Your task to perform on an android device: Do I have any events today? Image 0: 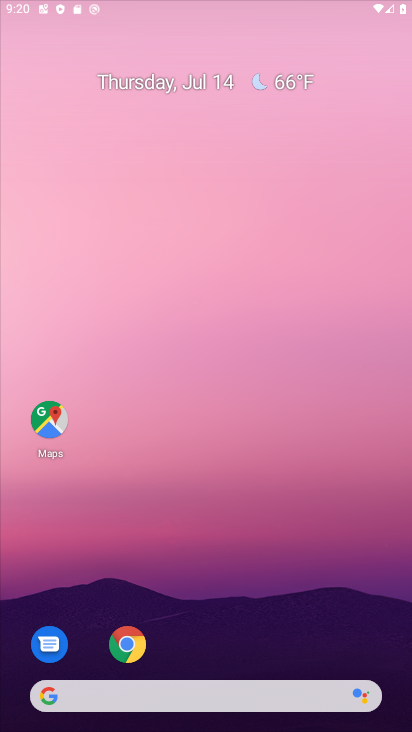
Step 0: press back button
Your task to perform on an android device: Do I have any events today? Image 1: 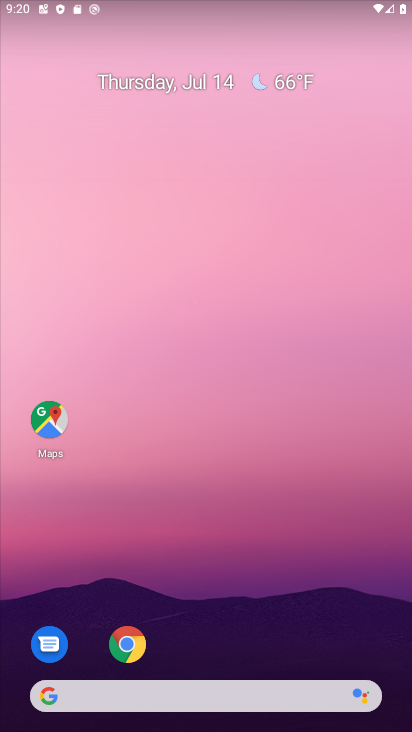
Step 1: drag from (267, 501) to (252, 433)
Your task to perform on an android device: Do I have any events today? Image 2: 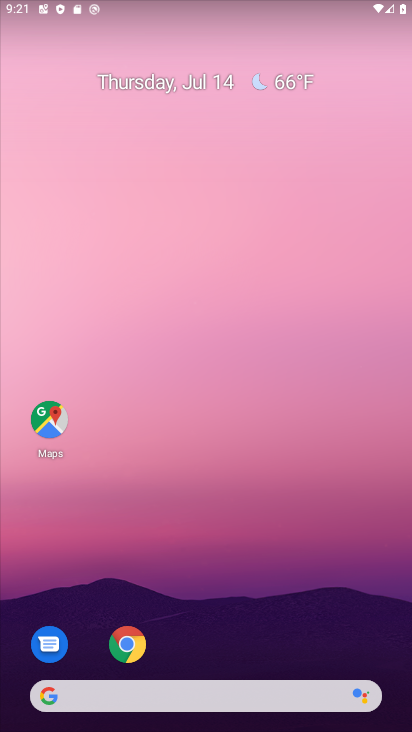
Step 2: drag from (164, 470) to (126, 152)
Your task to perform on an android device: Do I have any events today? Image 3: 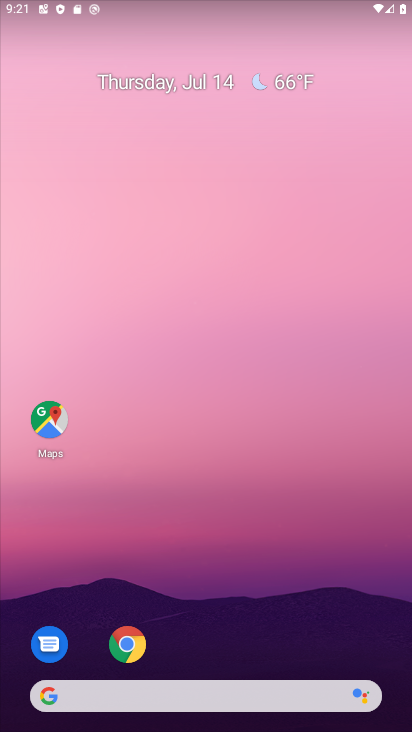
Step 3: drag from (216, 579) to (144, 107)
Your task to perform on an android device: Do I have any events today? Image 4: 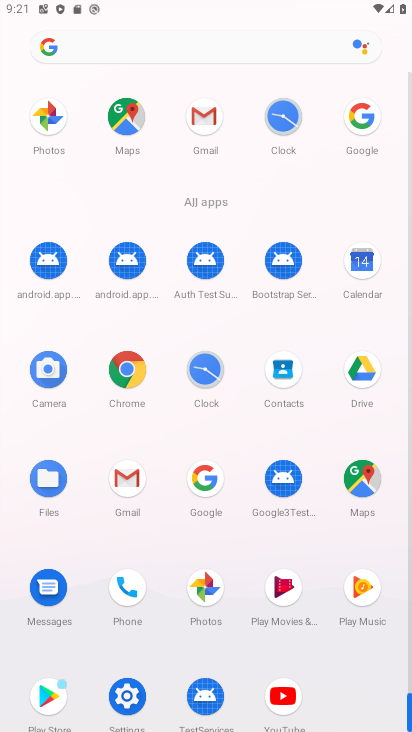
Step 4: click (368, 266)
Your task to perform on an android device: Do I have any events today? Image 5: 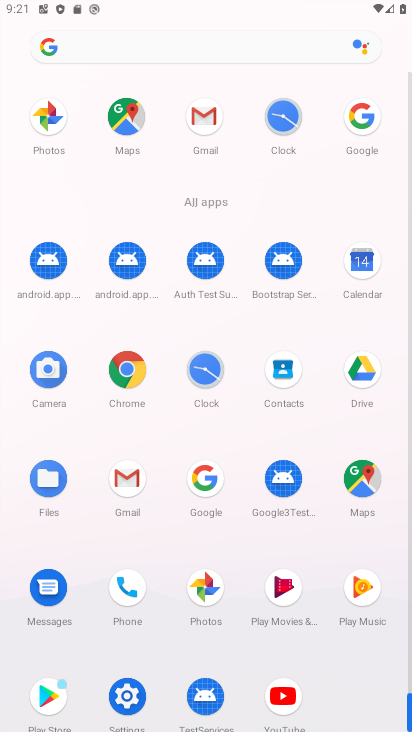
Step 5: click (368, 265)
Your task to perform on an android device: Do I have any events today? Image 6: 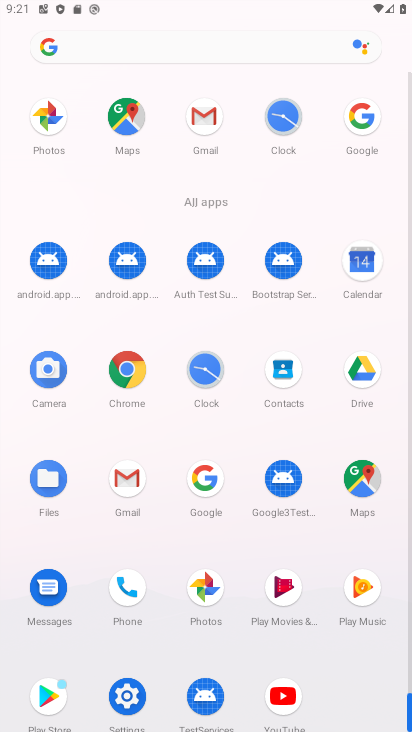
Step 6: click (353, 260)
Your task to perform on an android device: Do I have any events today? Image 7: 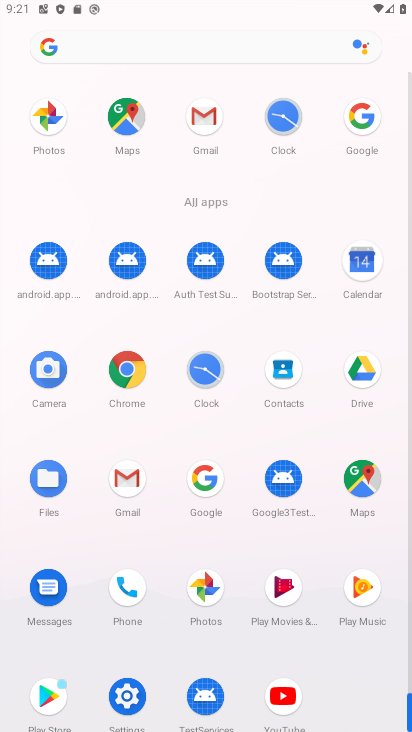
Step 7: click (353, 259)
Your task to perform on an android device: Do I have any events today? Image 8: 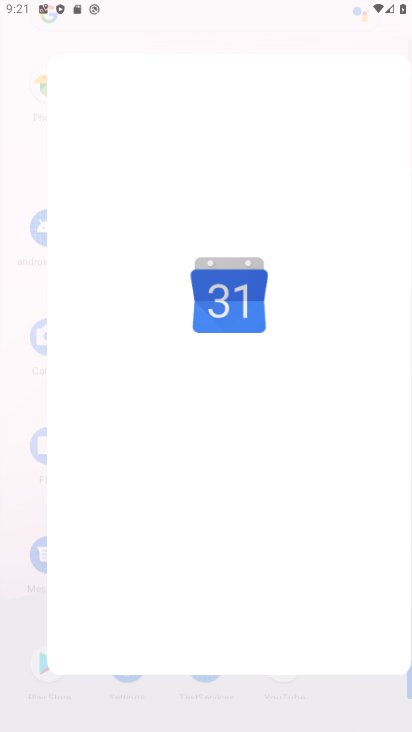
Step 8: click (362, 254)
Your task to perform on an android device: Do I have any events today? Image 9: 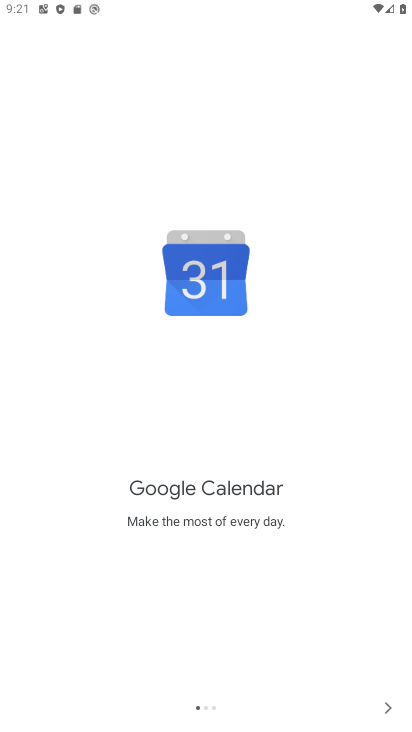
Step 9: click (377, 704)
Your task to perform on an android device: Do I have any events today? Image 10: 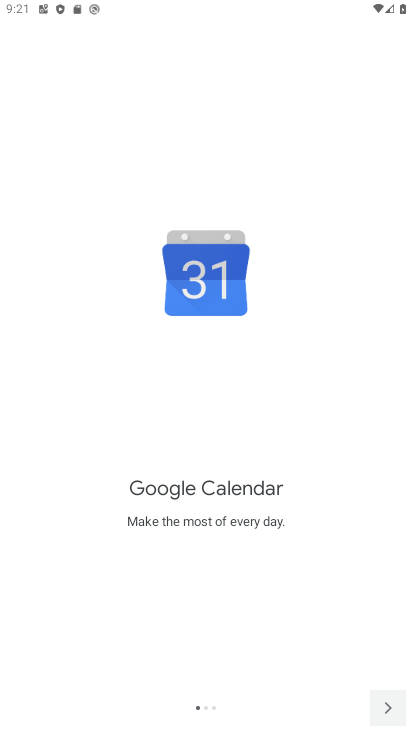
Step 10: click (378, 704)
Your task to perform on an android device: Do I have any events today? Image 11: 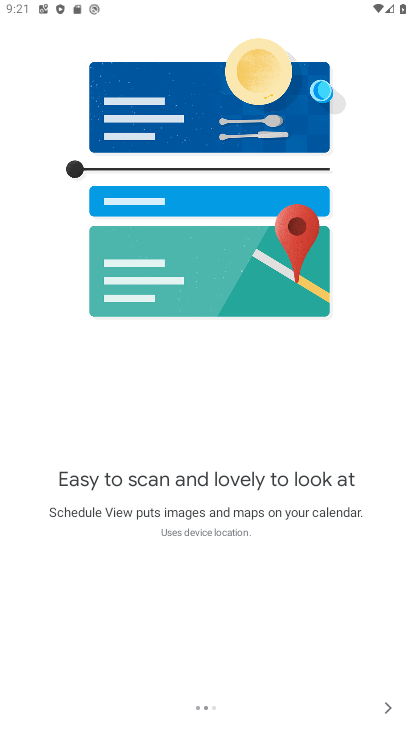
Step 11: click (379, 705)
Your task to perform on an android device: Do I have any events today? Image 12: 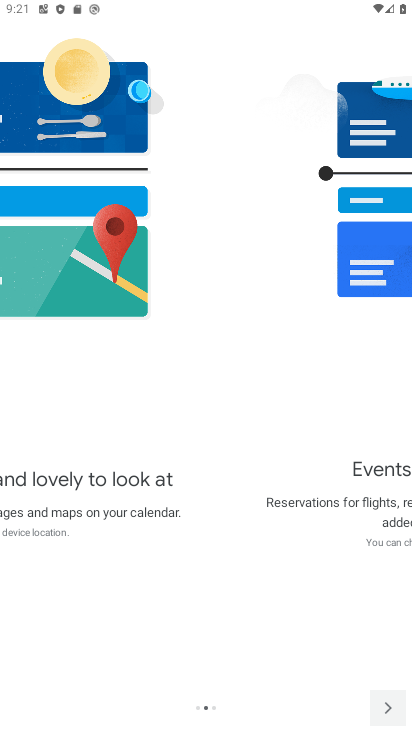
Step 12: click (379, 705)
Your task to perform on an android device: Do I have any events today? Image 13: 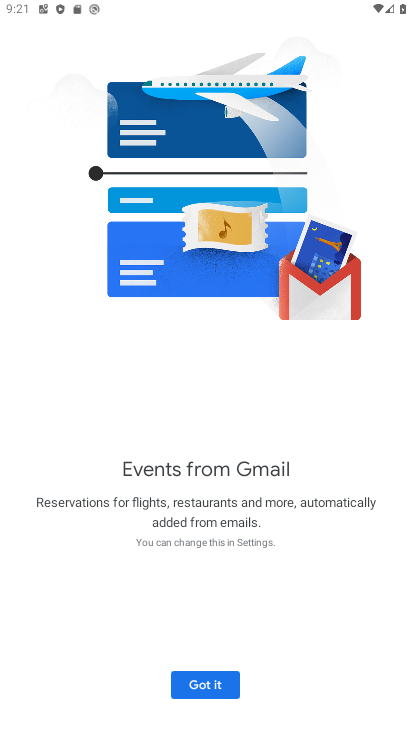
Step 13: click (383, 705)
Your task to perform on an android device: Do I have any events today? Image 14: 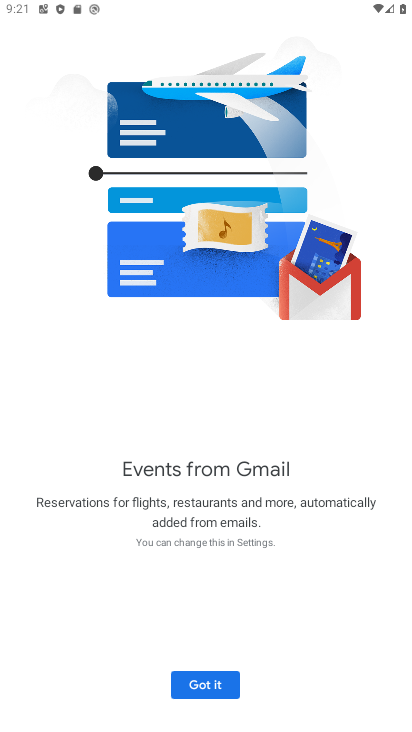
Step 14: click (211, 674)
Your task to perform on an android device: Do I have any events today? Image 15: 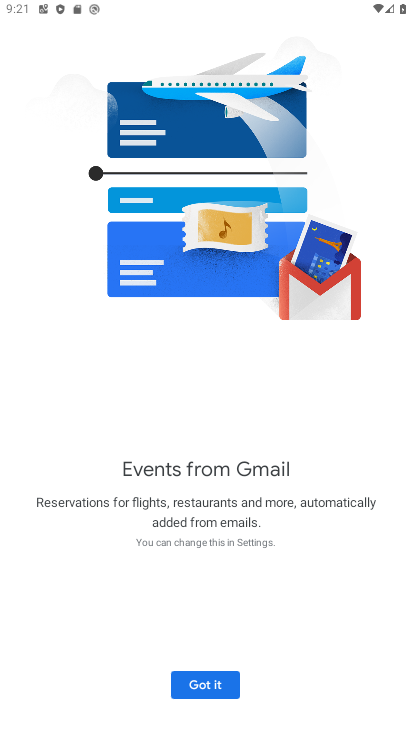
Step 15: click (208, 664)
Your task to perform on an android device: Do I have any events today? Image 16: 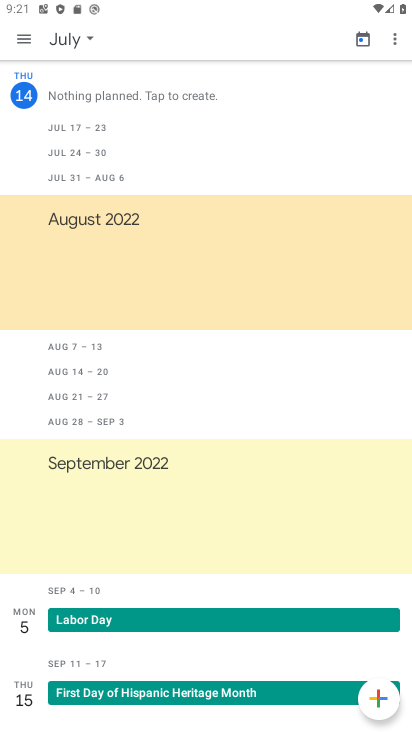
Step 16: click (85, 31)
Your task to perform on an android device: Do I have any events today? Image 17: 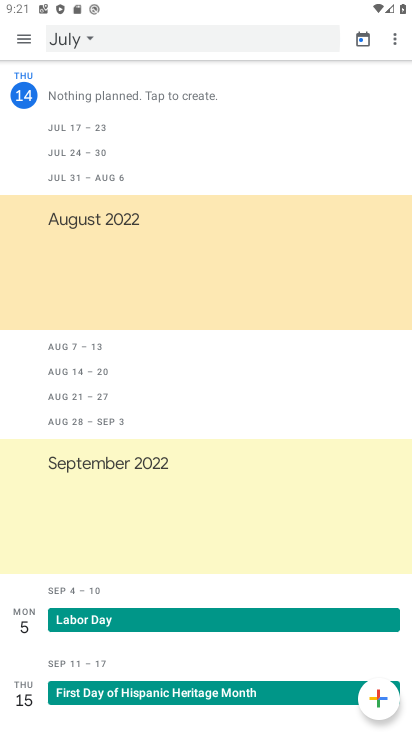
Step 17: click (90, 30)
Your task to perform on an android device: Do I have any events today? Image 18: 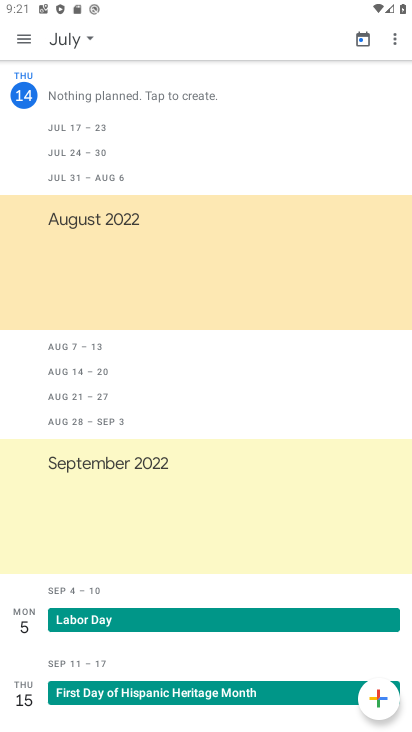
Step 18: click (93, 34)
Your task to perform on an android device: Do I have any events today? Image 19: 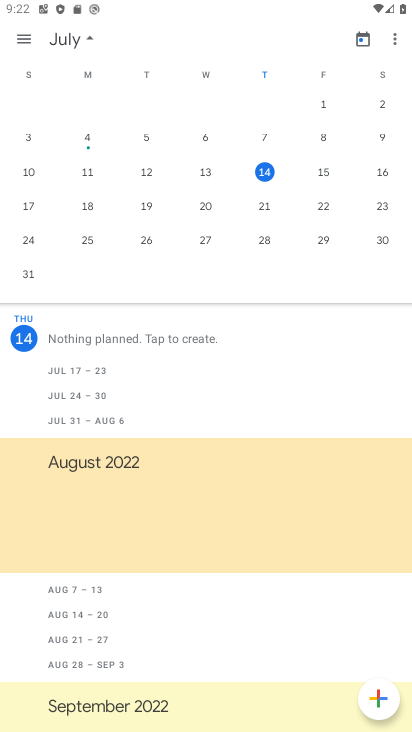
Step 19: click (321, 177)
Your task to perform on an android device: Do I have any events today? Image 20: 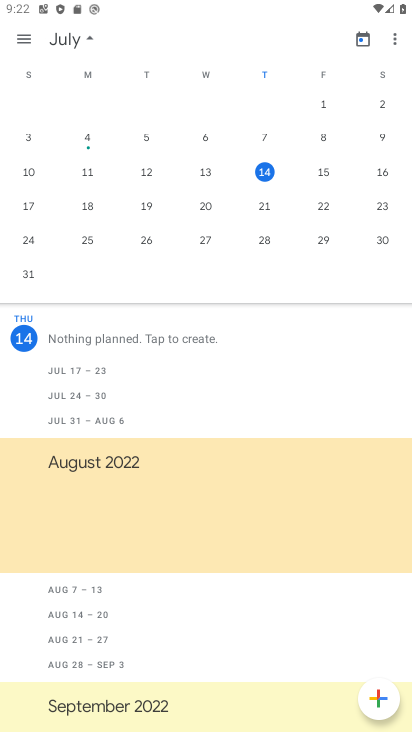
Step 20: click (321, 177)
Your task to perform on an android device: Do I have any events today? Image 21: 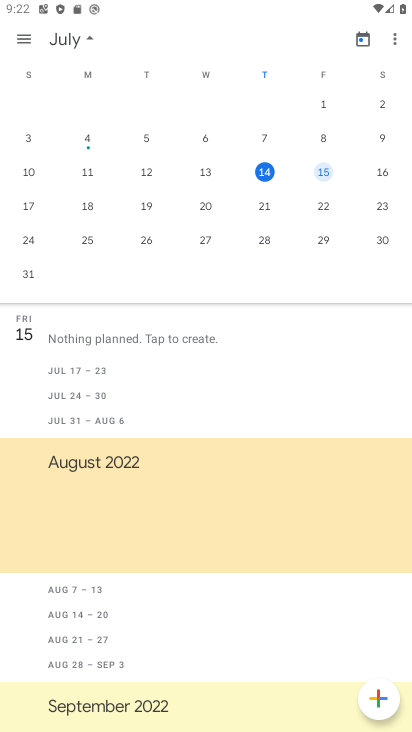
Step 21: click (320, 178)
Your task to perform on an android device: Do I have any events today? Image 22: 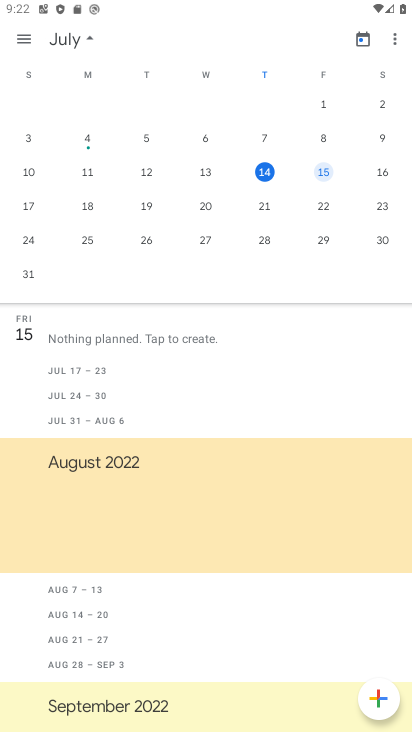
Step 22: click (321, 179)
Your task to perform on an android device: Do I have any events today? Image 23: 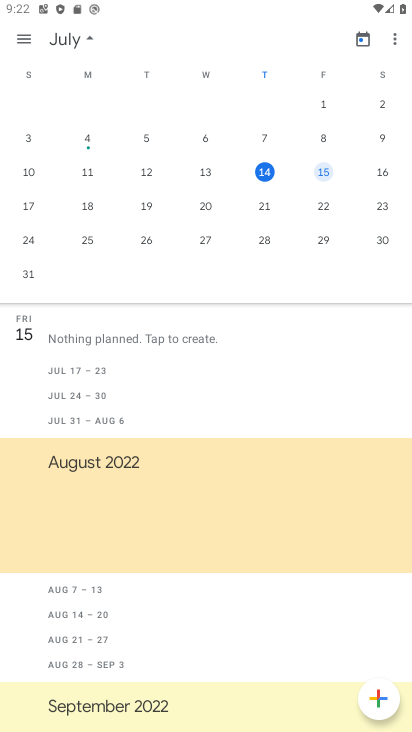
Step 23: task complete